Your task to perform on an android device: find snoozed emails in the gmail app Image 0: 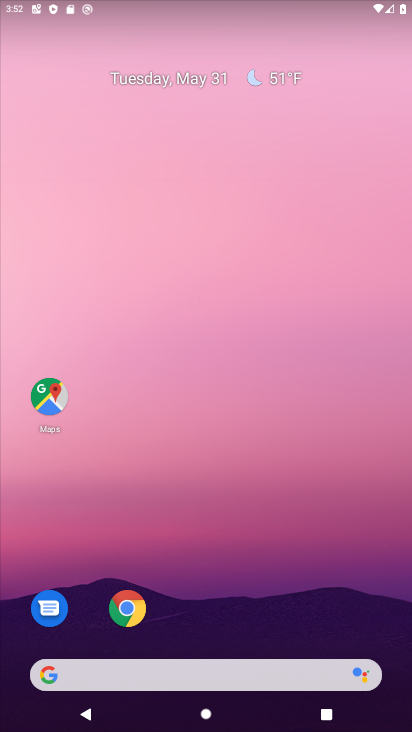
Step 0: click (217, 360)
Your task to perform on an android device: find snoozed emails in the gmail app Image 1: 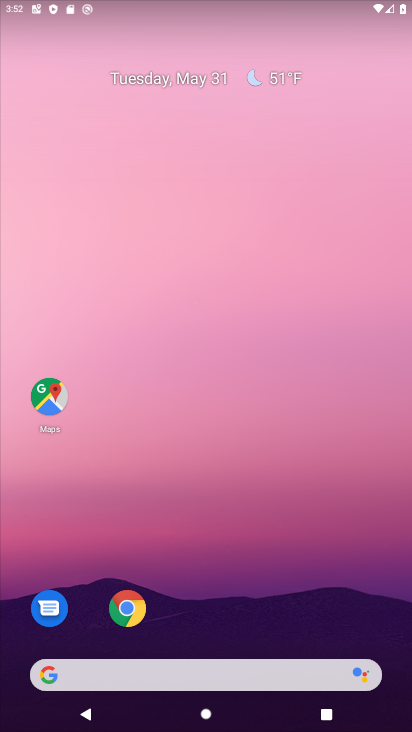
Step 1: drag from (231, 636) to (232, 250)
Your task to perform on an android device: find snoozed emails in the gmail app Image 2: 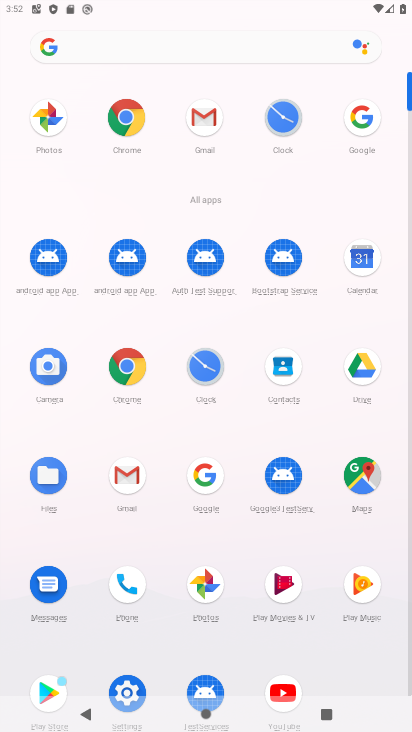
Step 2: click (205, 125)
Your task to perform on an android device: find snoozed emails in the gmail app Image 3: 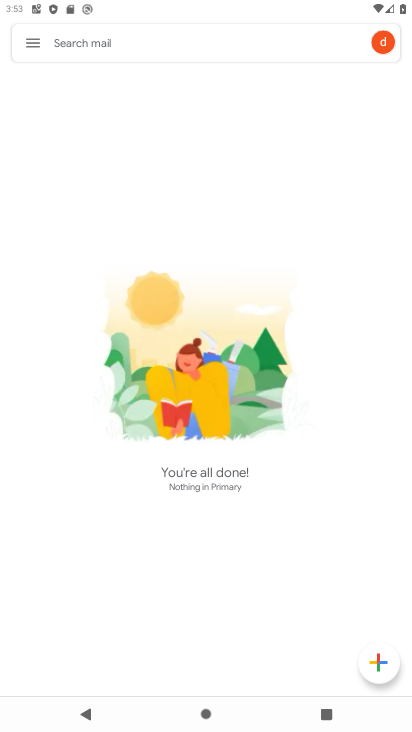
Step 3: click (31, 46)
Your task to perform on an android device: find snoozed emails in the gmail app Image 4: 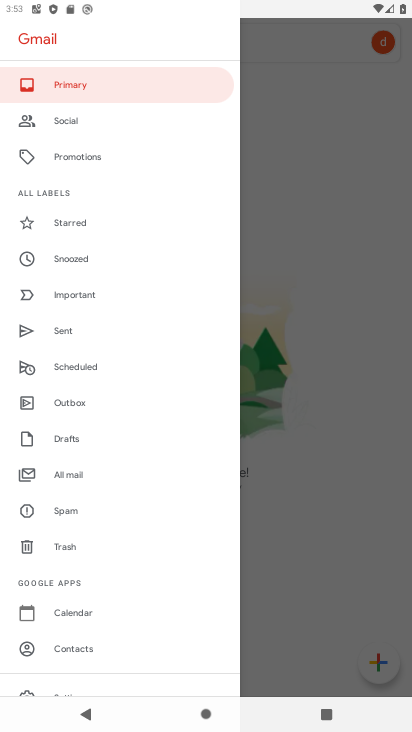
Step 4: click (84, 260)
Your task to perform on an android device: find snoozed emails in the gmail app Image 5: 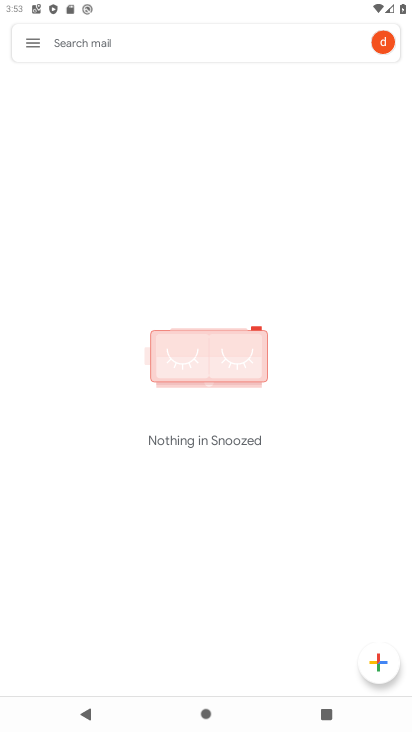
Step 5: task complete